Your task to perform on an android device: Open settings Image 0: 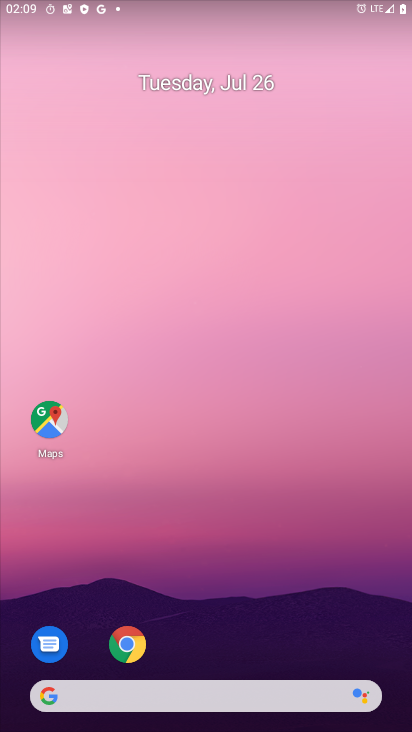
Step 0: drag from (234, 656) to (204, 121)
Your task to perform on an android device: Open settings Image 1: 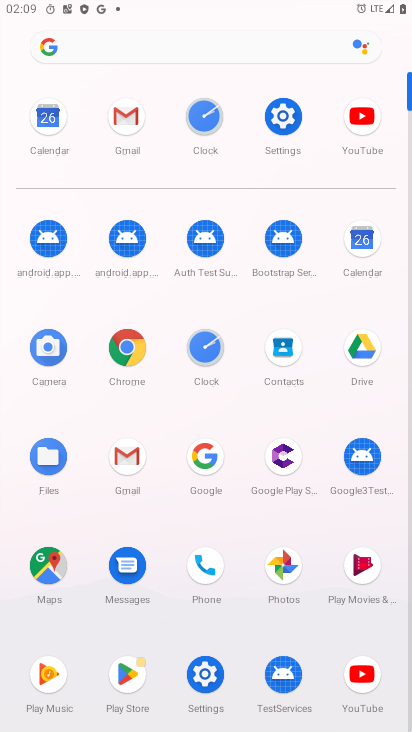
Step 1: click (283, 120)
Your task to perform on an android device: Open settings Image 2: 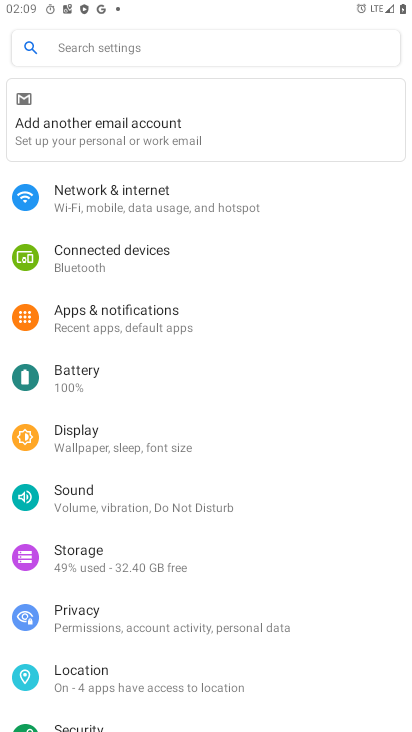
Step 2: task complete